Your task to perform on an android device: move a message to another label in the gmail app Image 0: 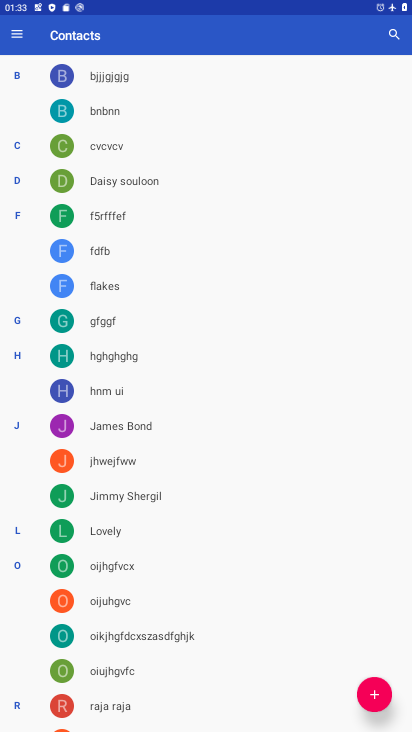
Step 0: press home button
Your task to perform on an android device: move a message to another label in the gmail app Image 1: 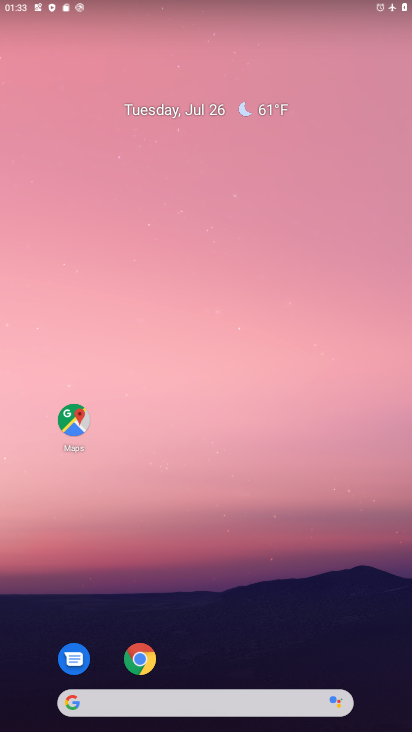
Step 1: drag from (324, 596) to (249, 66)
Your task to perform on an android device: move a message to another label in the gmail app Image 2: 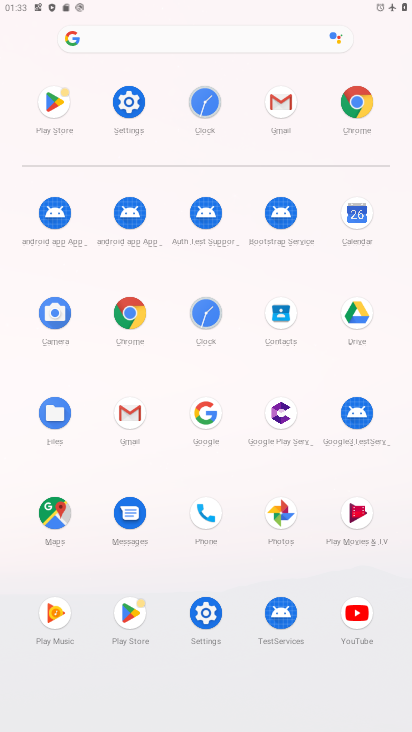
Step 2: click (287, 100)
Your task to perform on an android device: move a message to another label in the gmail app Image 3: 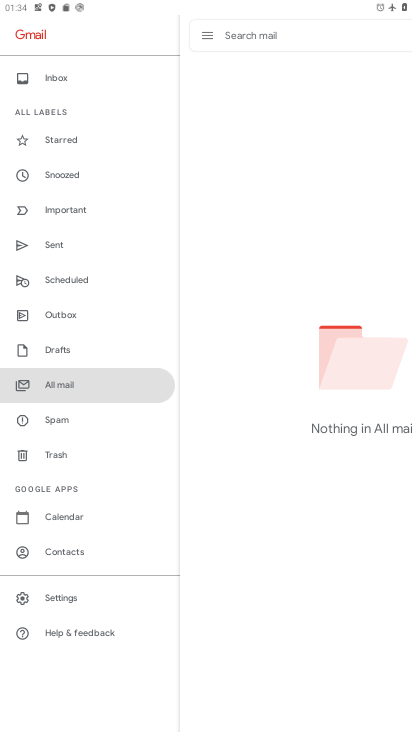
Step 3: task complete